Your task to perform on an android device: Go to CNN.com Image 0: 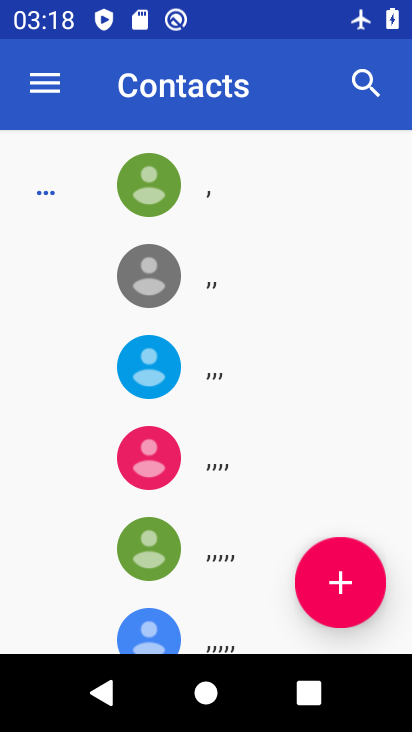
Step 0: press home button
Your task to perform on an android device: Go to CNN.com Image 1: 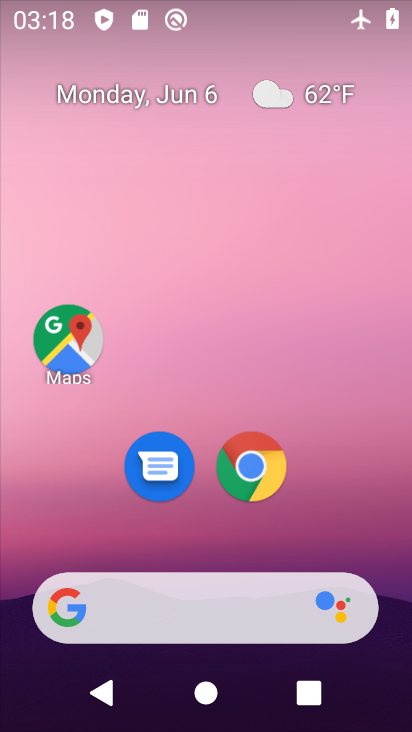
Step 1: click (256, 466)
Your task to perform on an android device: Go to CNN.com Image 2: 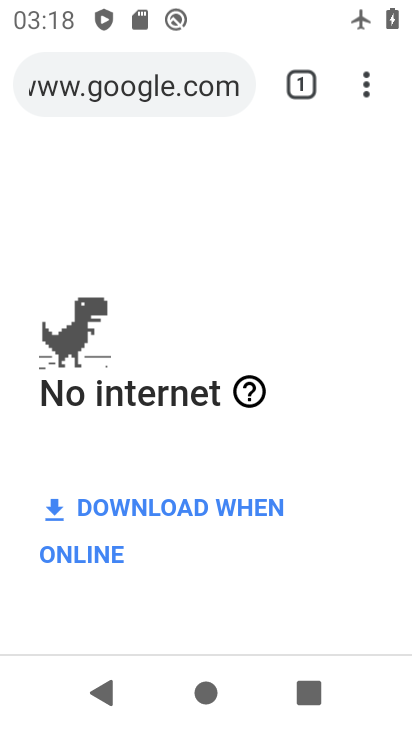
Step 2: click (168, 89)
Your task to perform on an android device: Go to CNN.com Image 3: 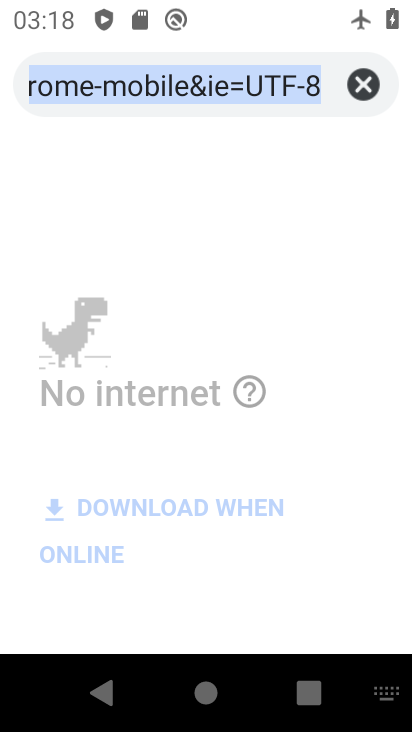
Step 3: type "cnn.om"
Your task to perform on an android device: Go to CNN.com Image 4: 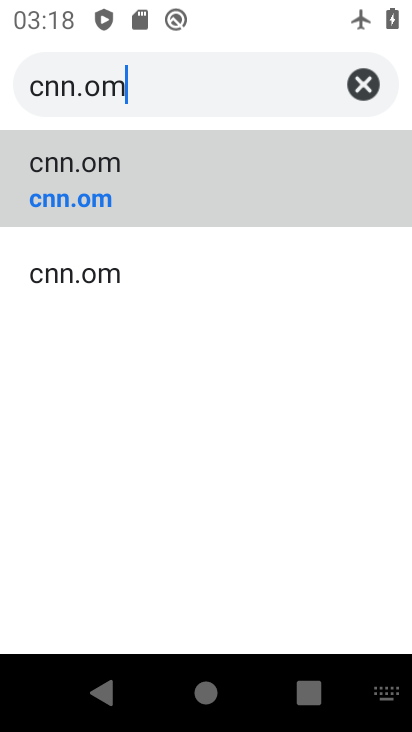
Step 4: click (369, 70)
Your task to perform on an android device: Go to CNN.com Image 5: 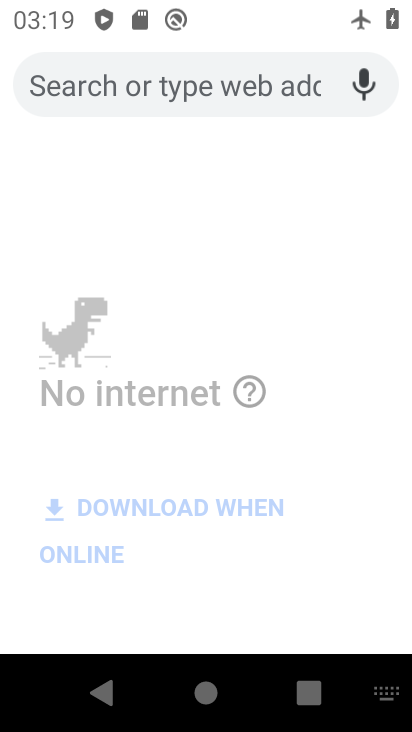
Step 5: type "cnn.com"
Your task to perform on an android device: Go to CNN.com Image 6: 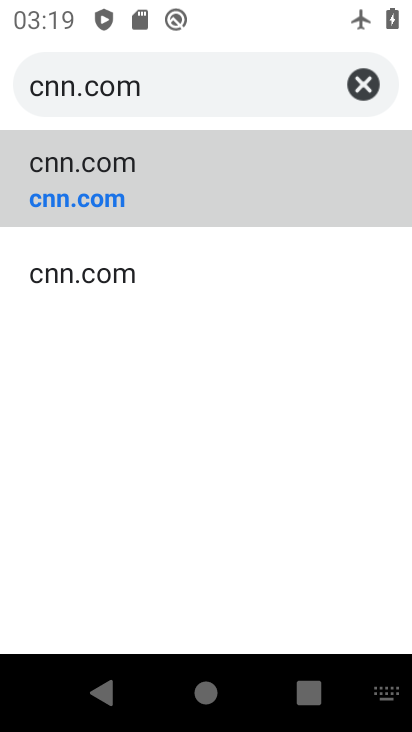
Step 6: click (128, 204)
Your task to perform on an android device: Go to CNN.com Image 7: 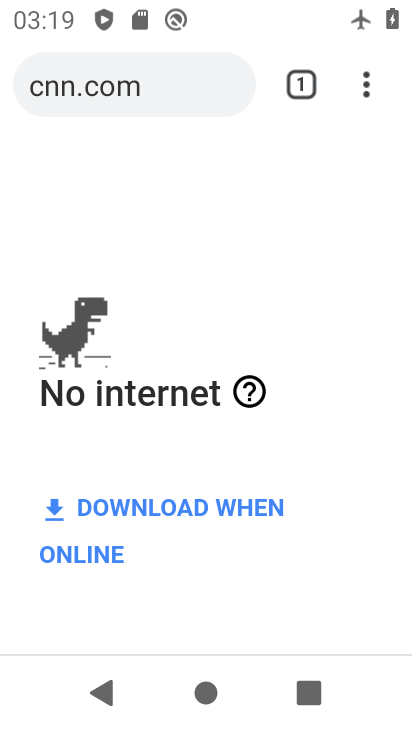
Step 7: task complete